Your task to perform on an android device: Do I have any events today? Image 0: 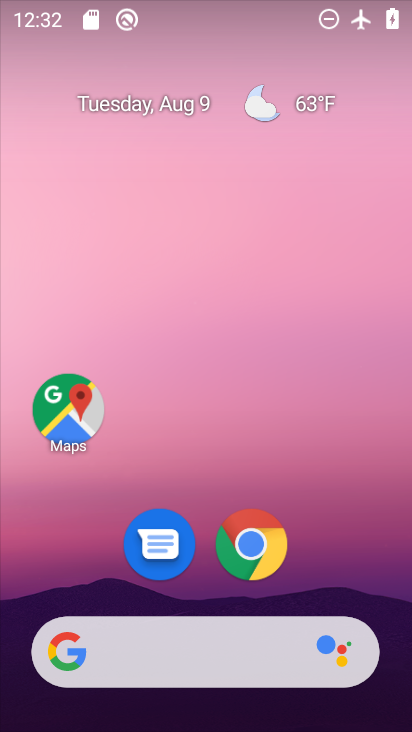
Step 0: drag from (189, 664) to (277, 186)
Your task to perform on an android device: Do I have any events today? Image 1: 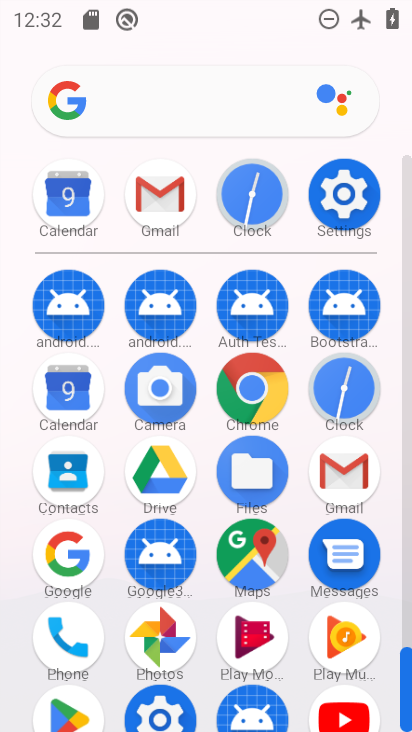
Step 1: click (69, 196)
Your task to perform on an android device: Do I have any events today? Image 2: 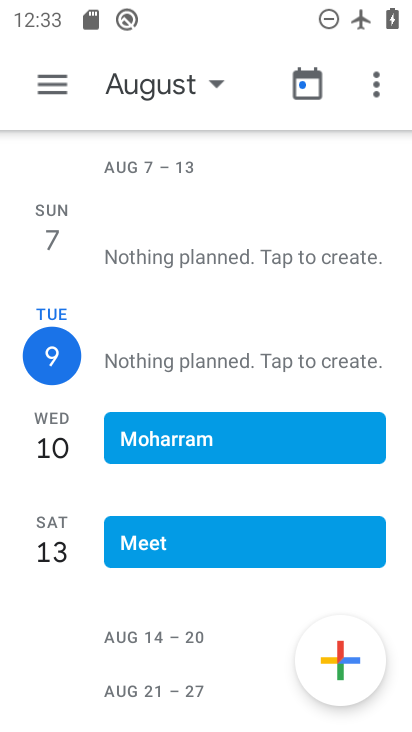
Step 2: task complete